Your task to perform on an android device: What is the recent news? Image 0: 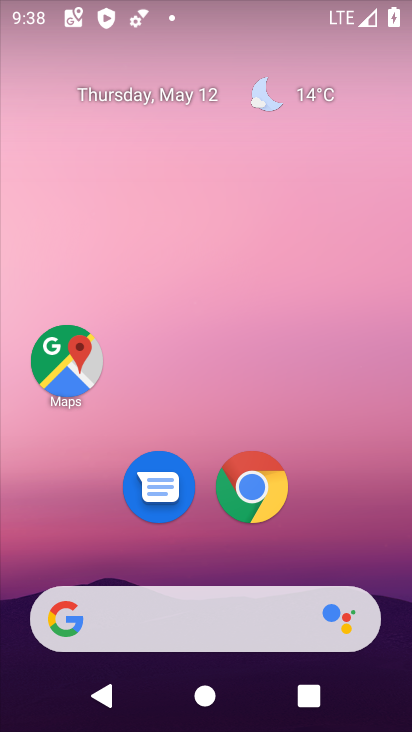
Step 0: press home button
Your task to perform on an android device: What is the recent news? Image 1: 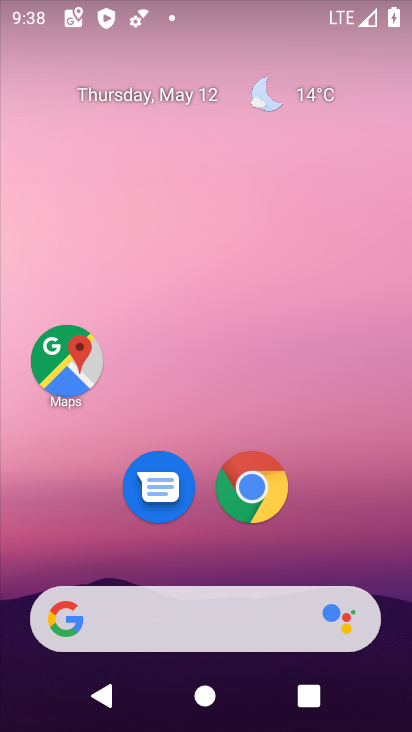
Step 1: click (97, 623)
Your task to perform on an android device: What is the recent news? Image 2: 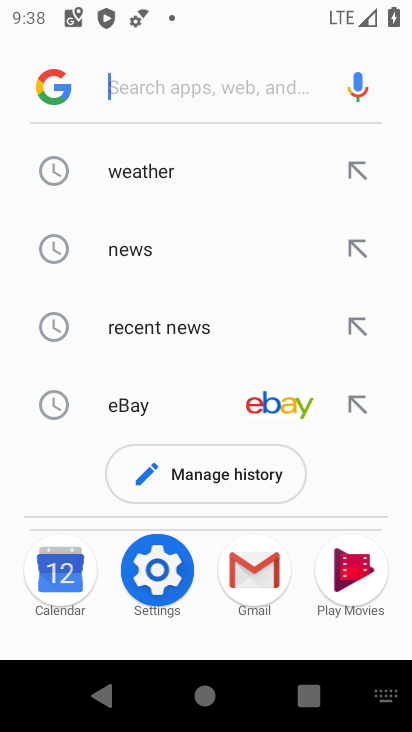
Step 2: click (161, 247)
Your task to perform on an android device: What is the recent news? Image 3: 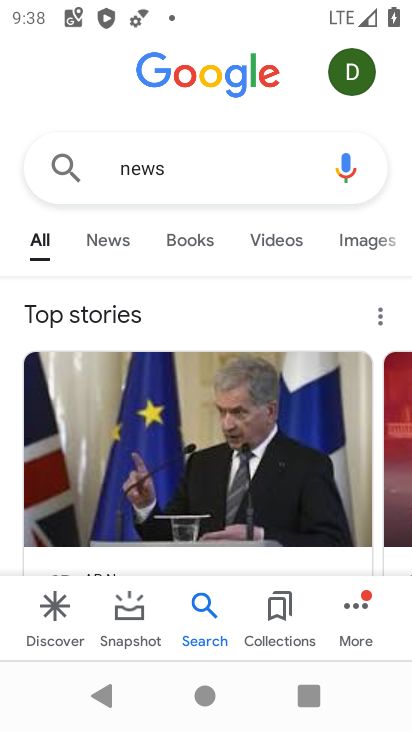
Step 3: task complete